Your task to perform on an android device: open a new tab in the chrome app Image 0: 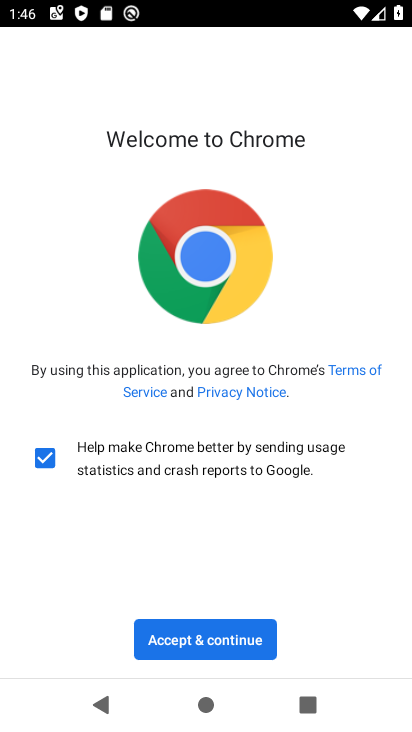
Step 0: click (232, 637)
Your task to perform on an android device: open a new tab in the chrome app Image 1: 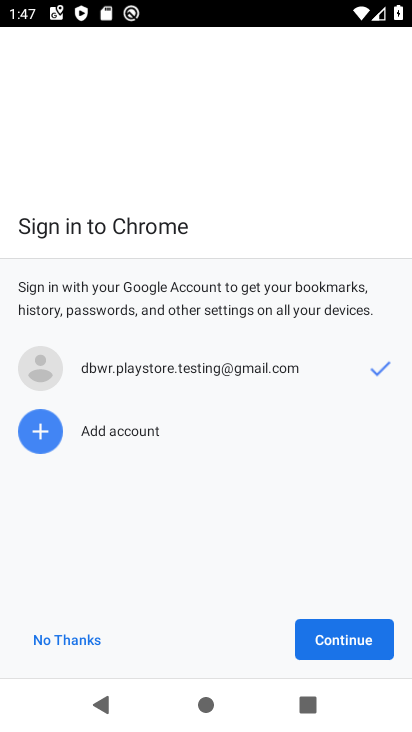
Step 1: click (348, 636)
Your task to perform on an android device: open a new tab in the chrome app Image 2: 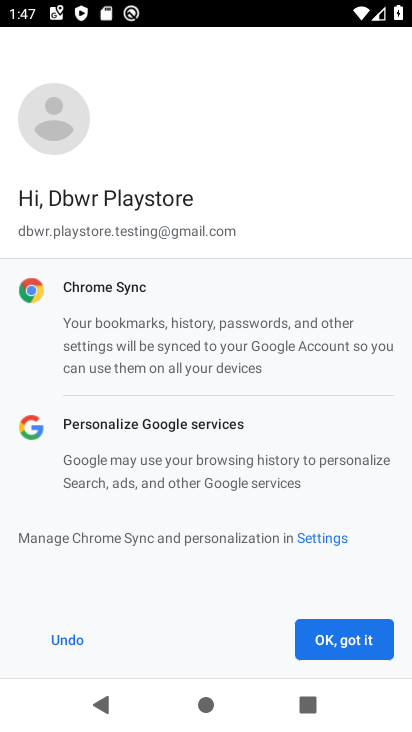
Step 2: click (347, 633)
Your task to perform on an android device: open a new tab in the chrome app Image 3: 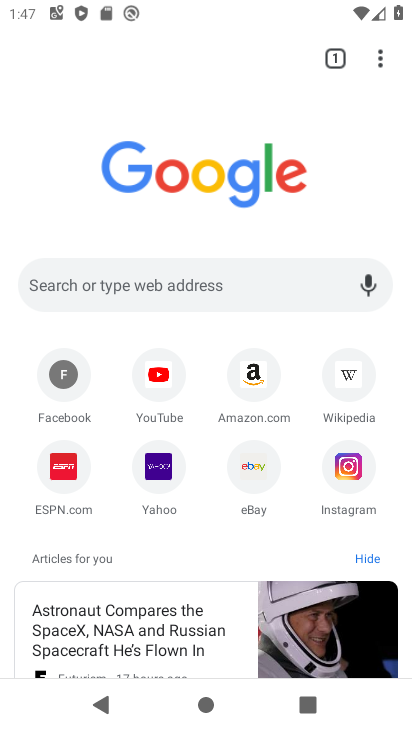
Step 3: task complete